Your task to perform on an android device: set the stopwatch Image 0: 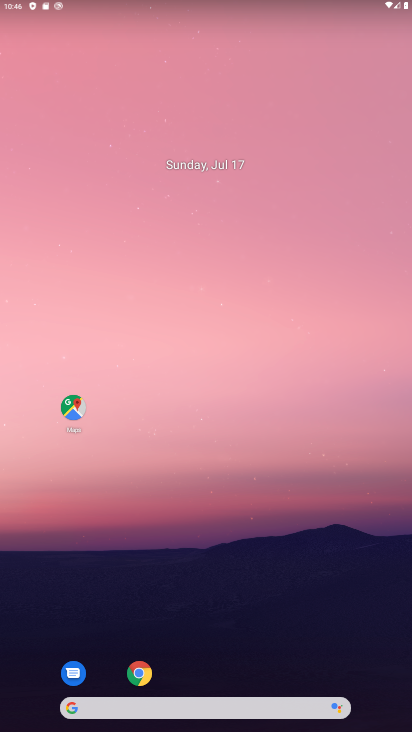
Step 0: drag from (247, 529) to (246, 186)
Your task to perform on an android device: set the stopwatch Image 1: 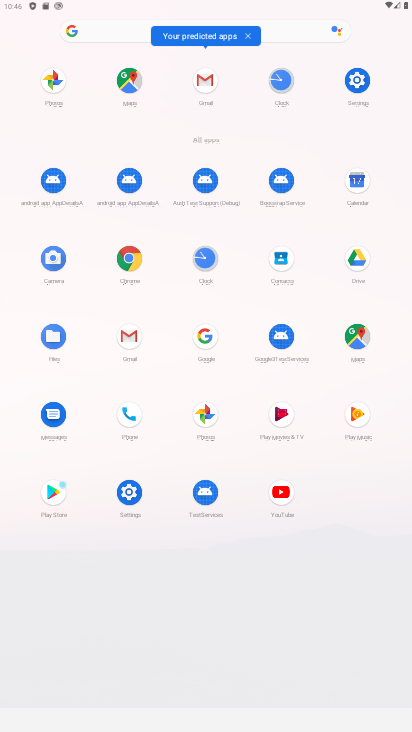
Step 1: click (209, 254)
Your task to perform on an android device: set the stopwatch Image 2: 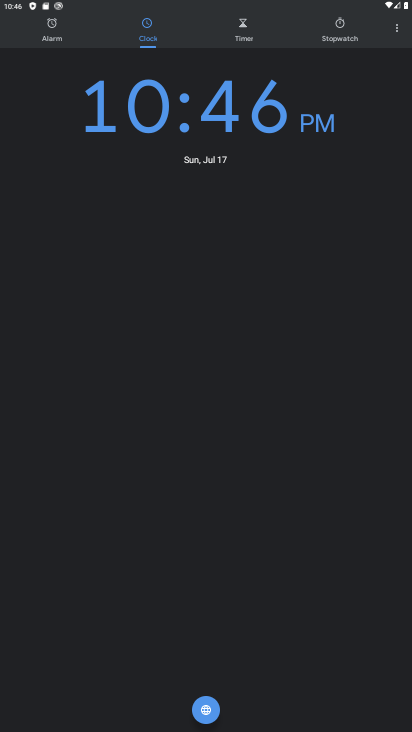
Step 2: click (342, 24)
Your task to perform on an android device: set the stopwatch Image 3: 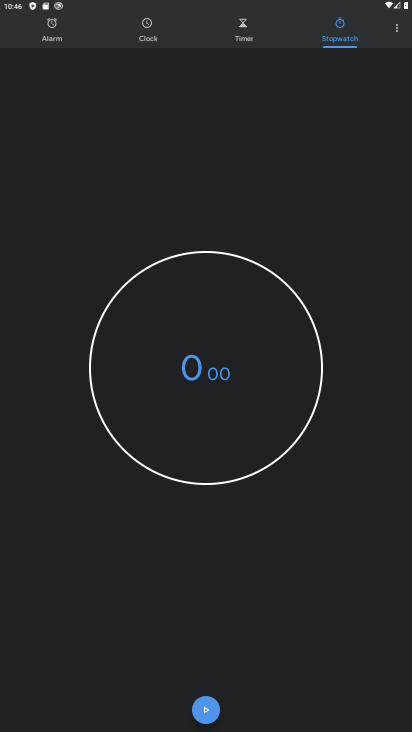
Step 3: task complete